Your task to perform on an android device: Open Google Image 0: 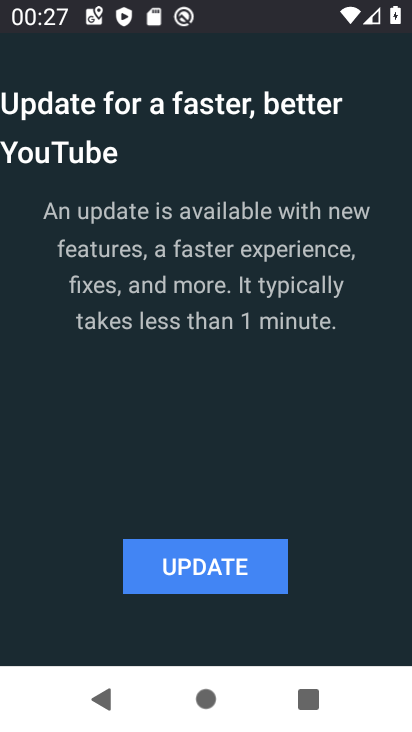
Step 0: click (193, 577)
Your task to perform on an android device: Open Google Image 1: 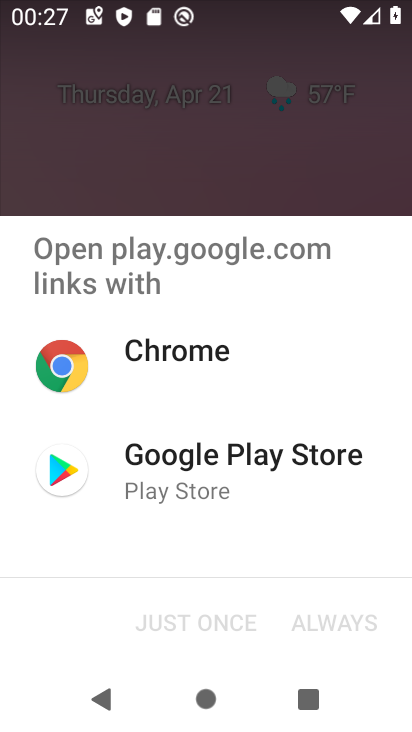
Step 1: press home button
Your task to perform on an android device: Open Google Image 2: 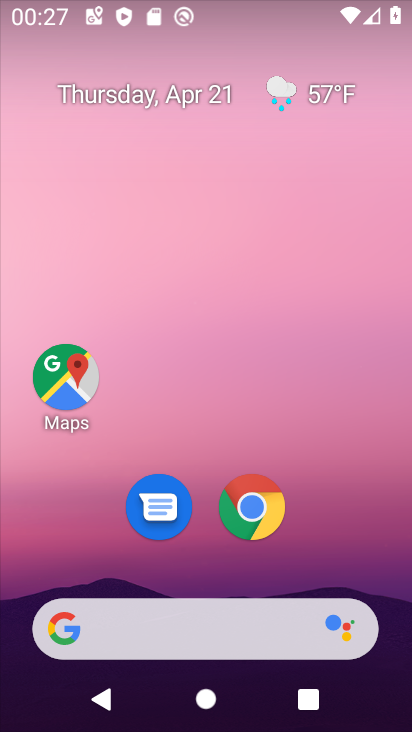
Step 2: drag from (156, 580) to (219, 283)
Your task to perform on an android device: Open Google Image 3: 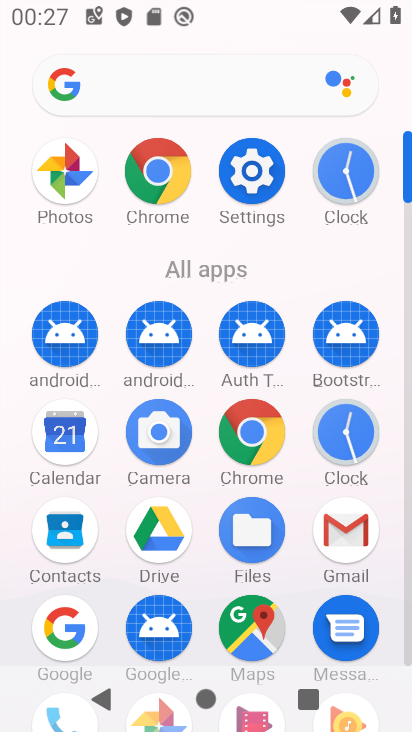
Step 3: click (71, 612)
Your task to perform on an android device: Open Google Image 4: 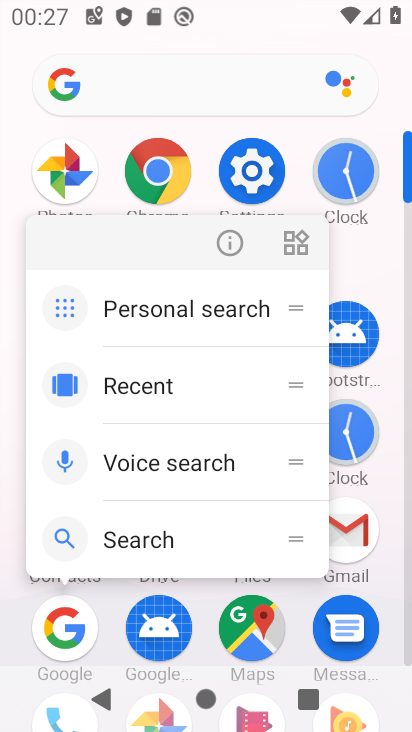
Step 4: click (234, 233)
Your task to perform on an android device: Open Google Image 5: 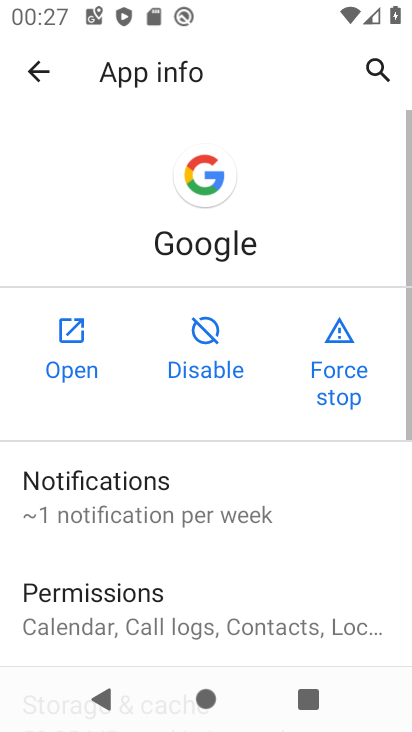
Step 5: click (78, 367)
Your task to perform on an android device: Open Google Image 6: 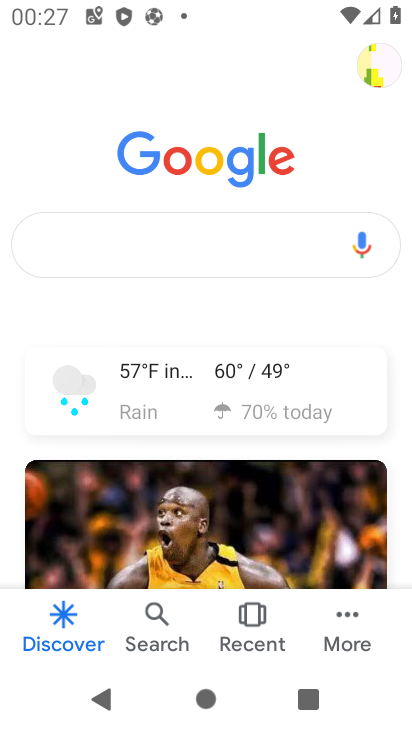
Step 6: task complete